Your task to perform on an android device: Go to CNN.com Image 0: 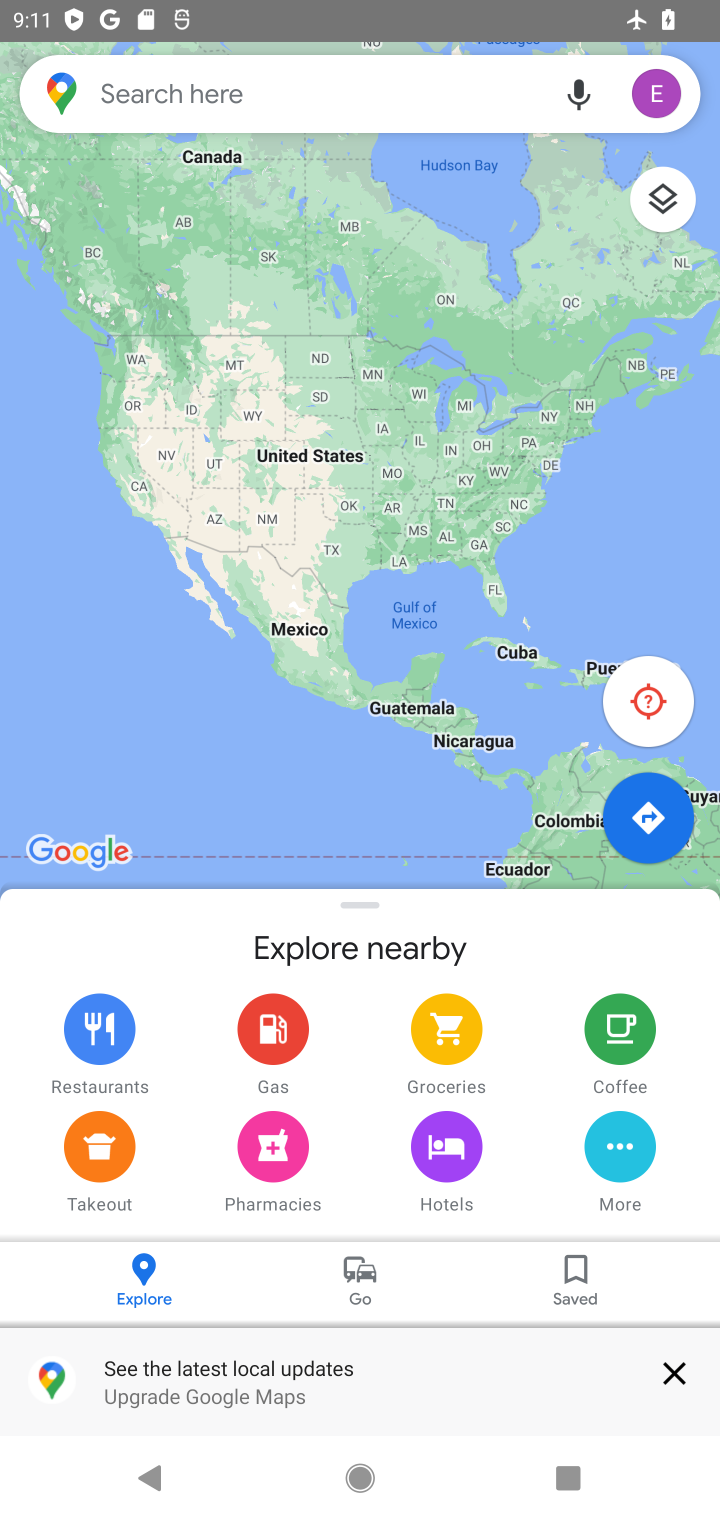
Step 0: press home button
Your task to perform on an android device: Go to CNN.com Image 1: 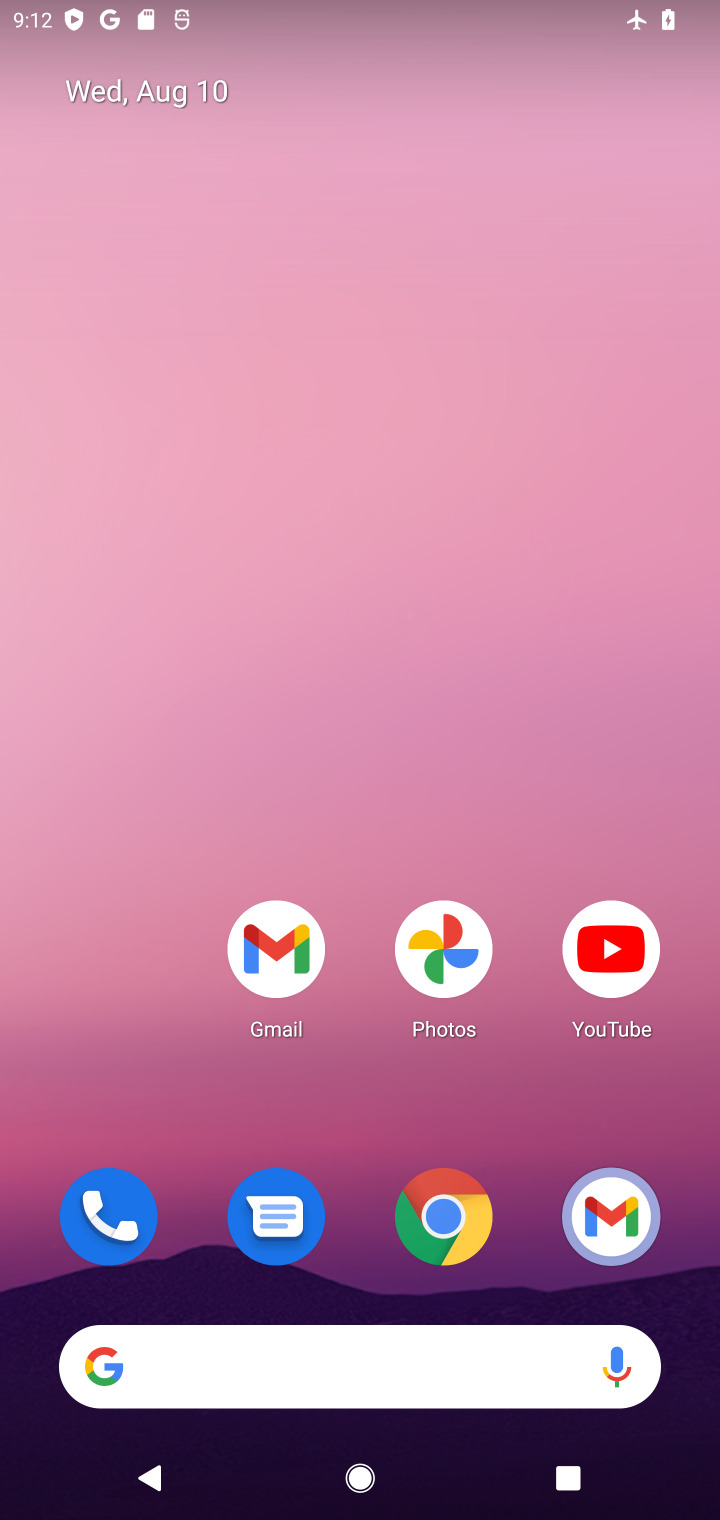
Step 1: click (392, 1368)
Your task to perform on an android device: Go to CNN.com Image 2: 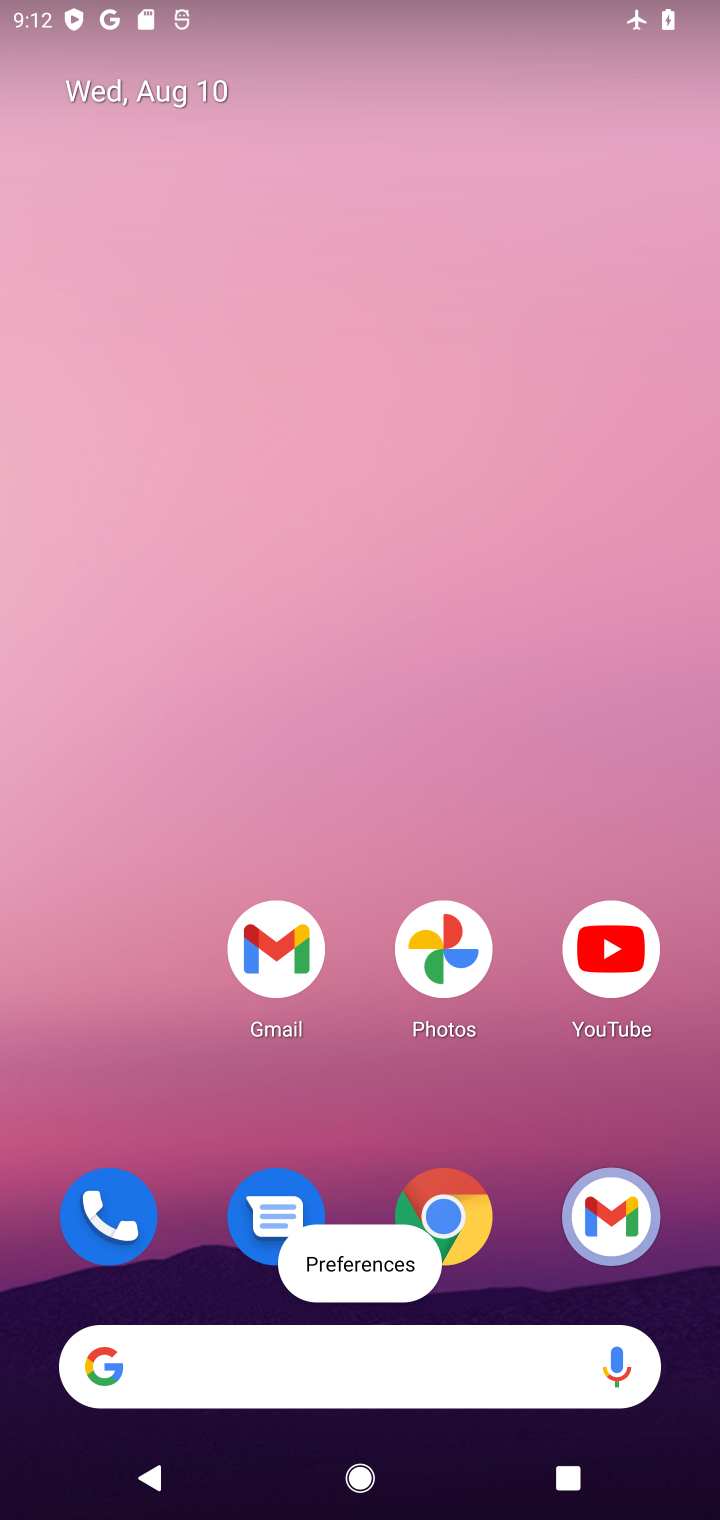
Step 2: click (331, 1394)
Your task to perform on an android device: Go to CNN.com Image 3: 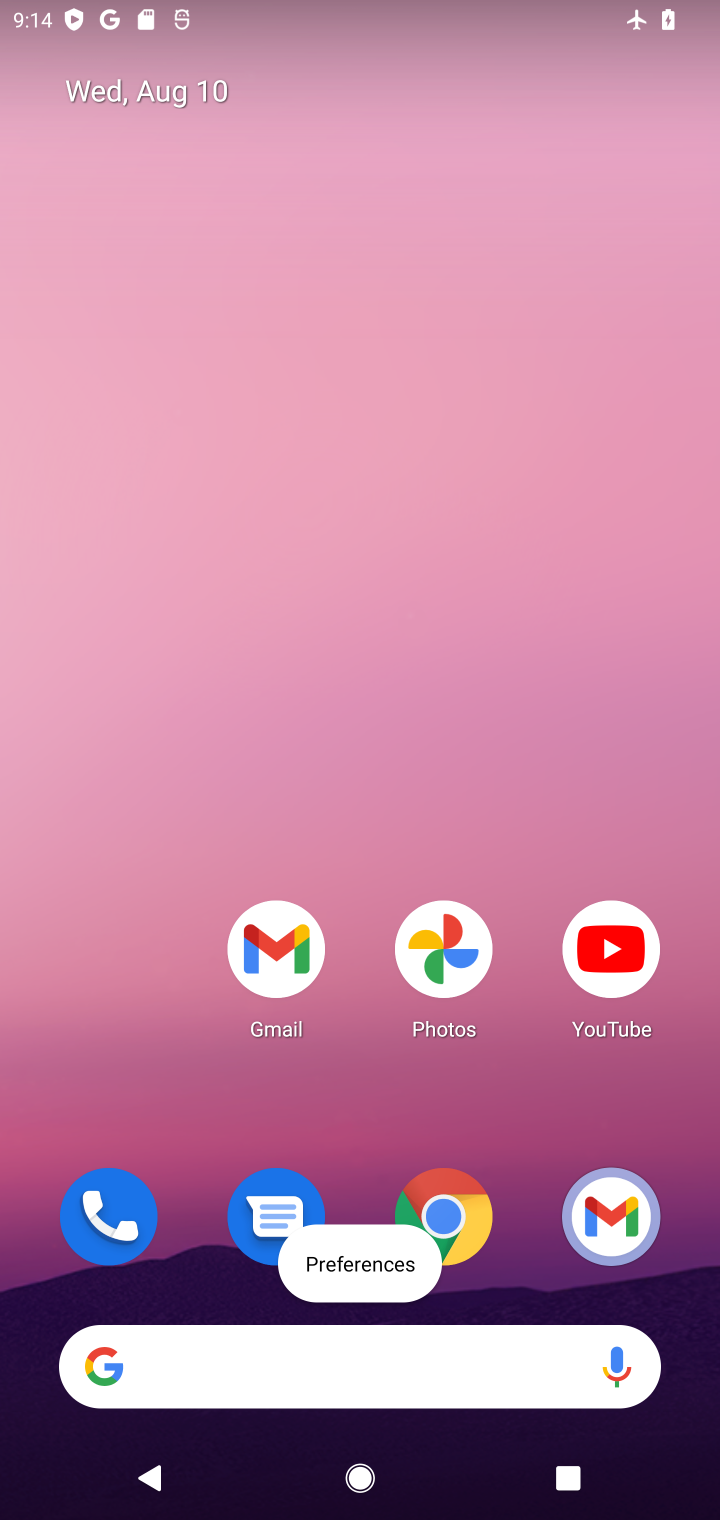
Step 3: click (356, 1375)
Your task to perform on an android device: Go to CNN.com Image 4: 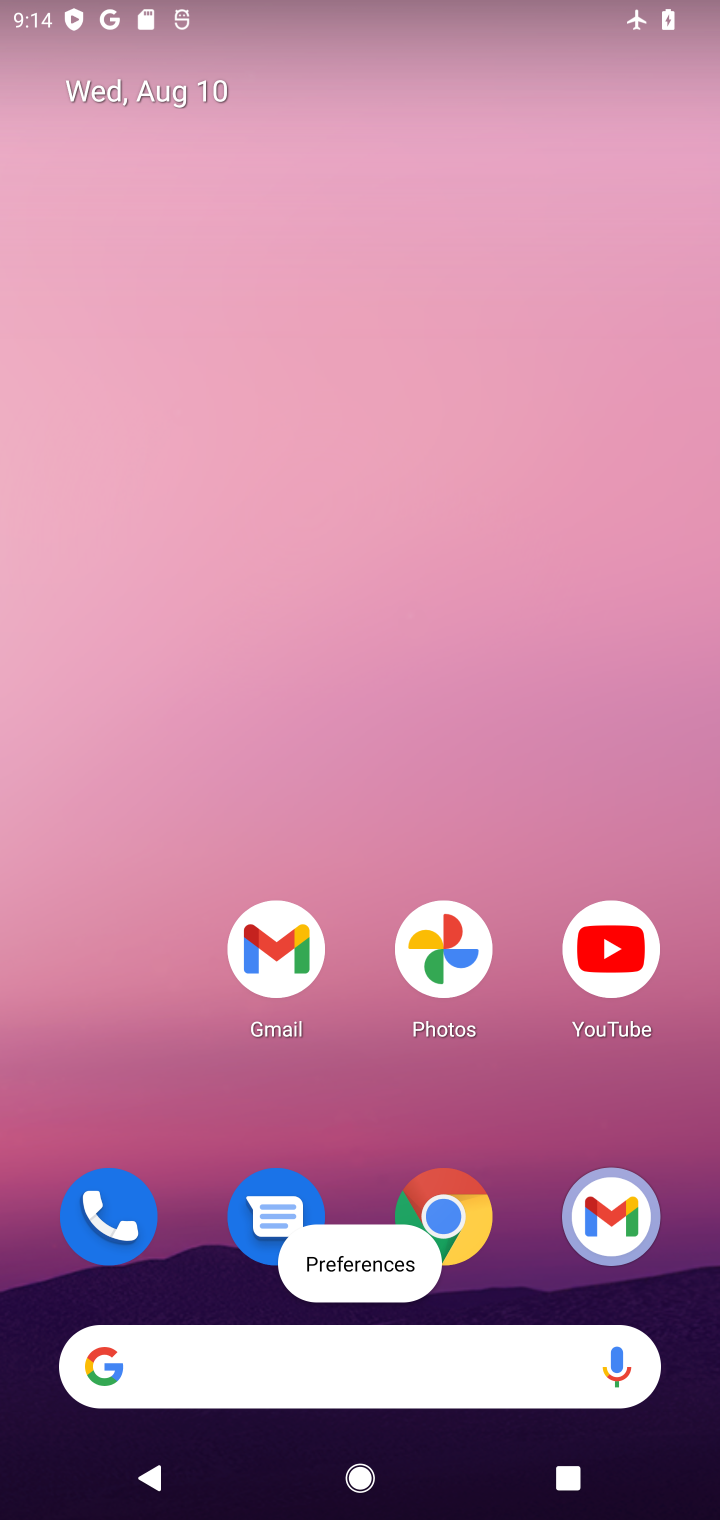
Step 4: click (357, 1372)
Your task to perform on an android device: Go to CNN.com Image 5: 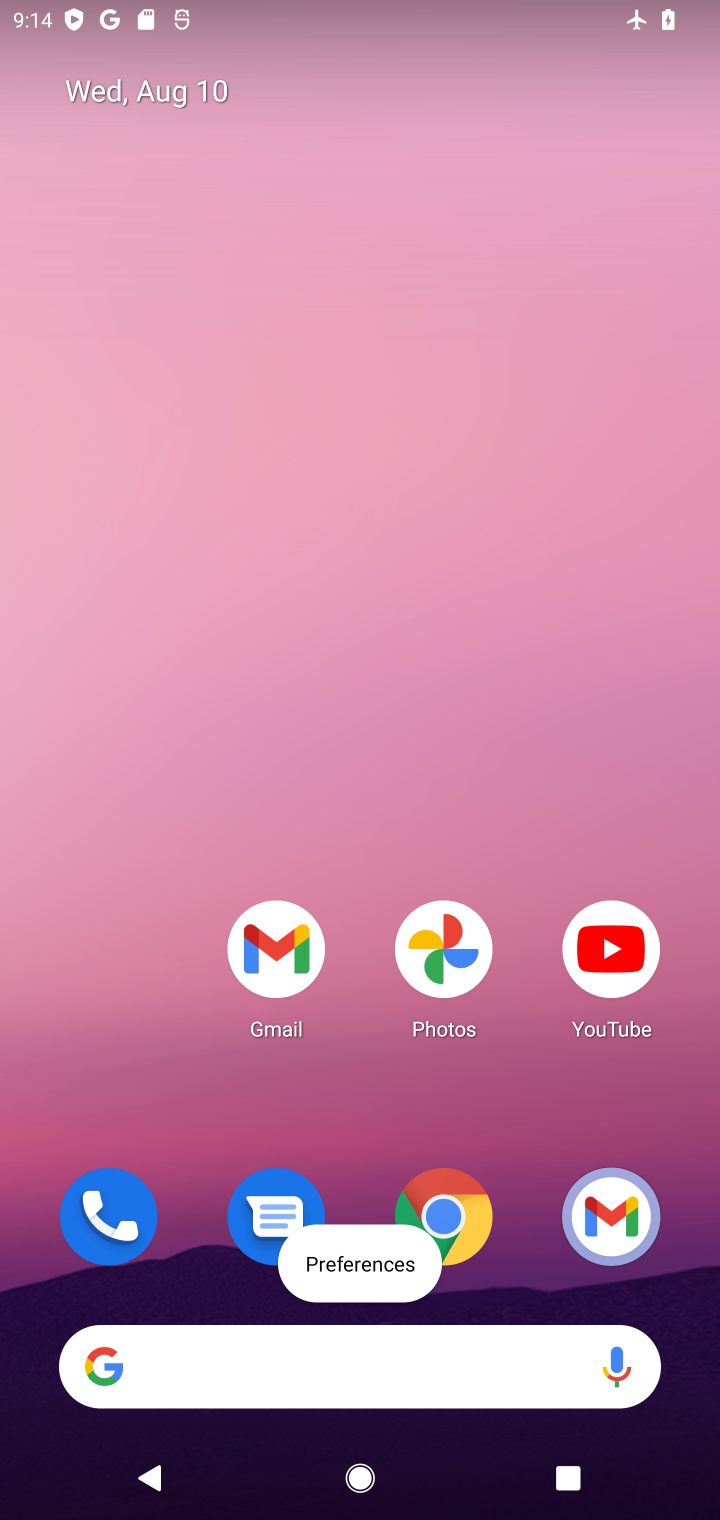
Step 5: click (357, 1372)
Your task to perform on an android device: Go to CNN.com Image 6: 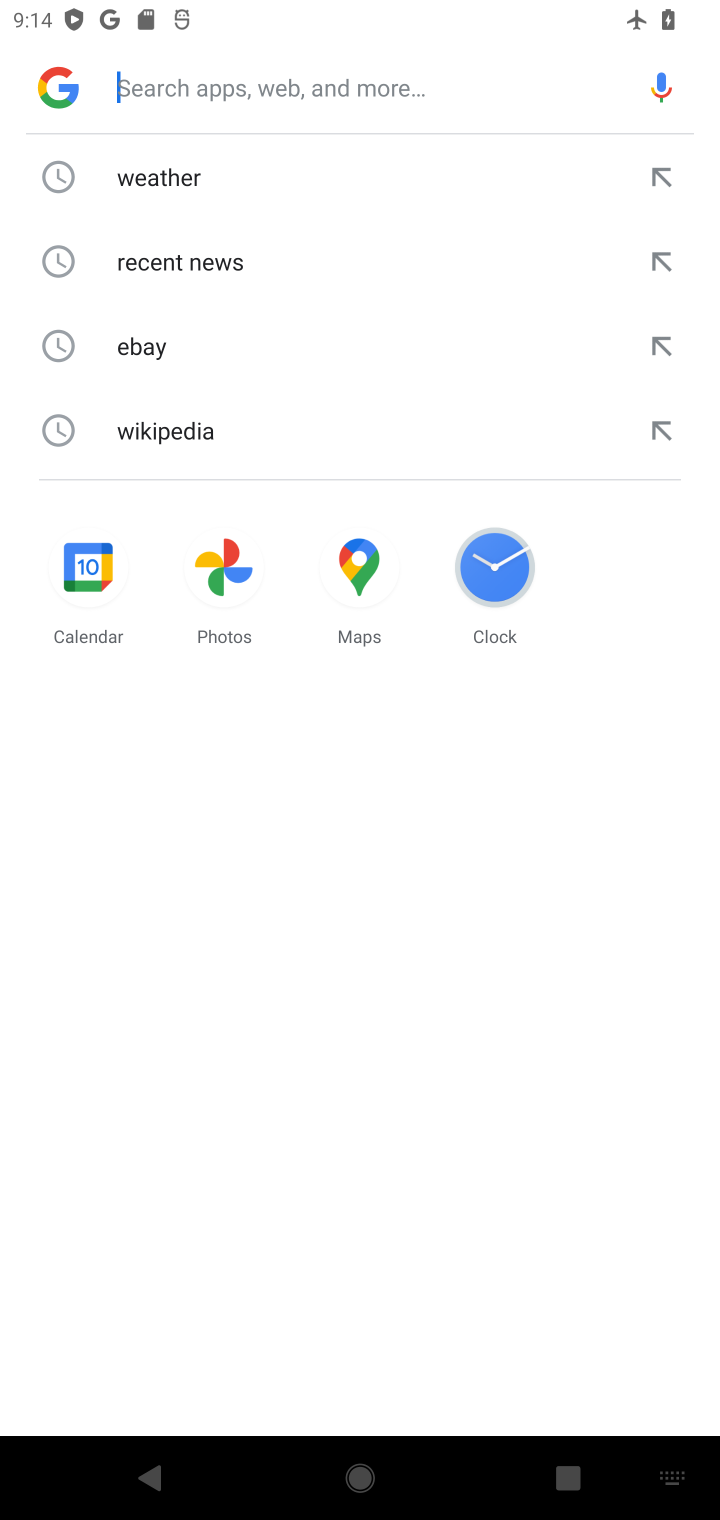
Step 6: click (411, 80)
Your task to perform on an android device: Go to CNN.com Image 7: 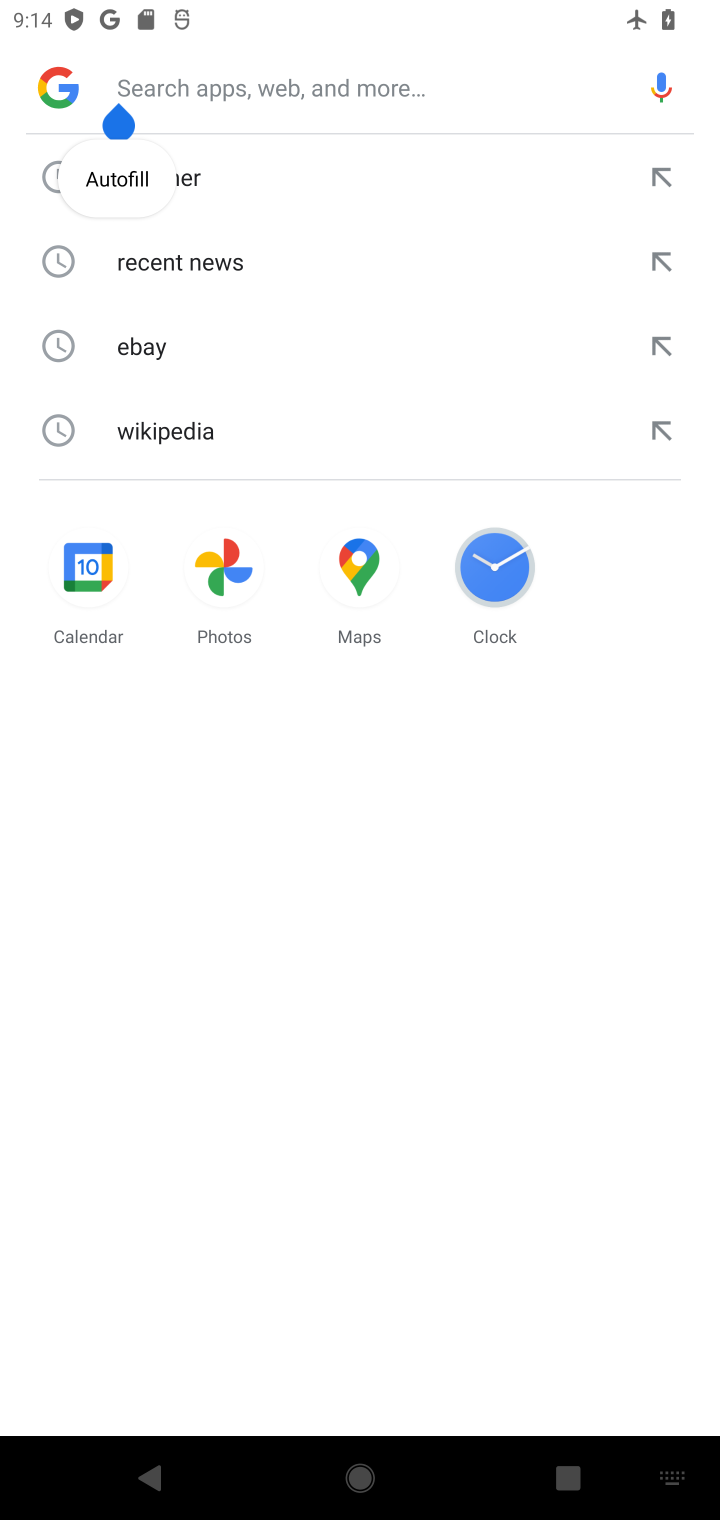
Step 7: type " CNN.com"
Your task to perform on an android device: Go to CNN.com Image 8: 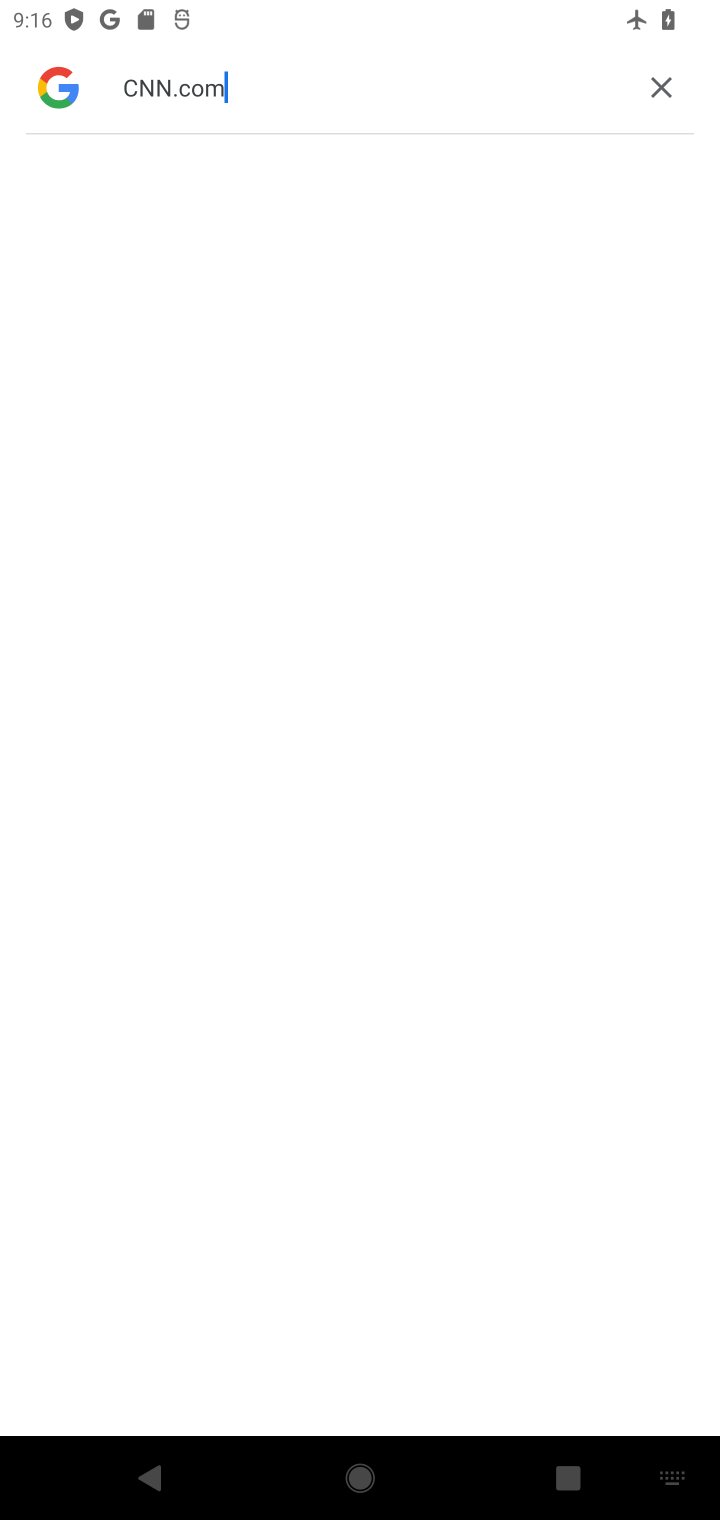
Step 8: task complete